Your task to perform on an android device: change keyboard looks Image 0: 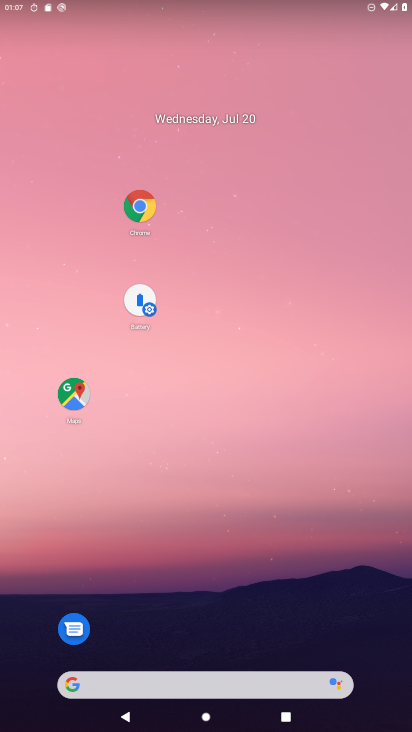
Step 0: drag from (162, 561) to (179, 88)
Your task to perform on an android device: change keyboard looks Image 1: 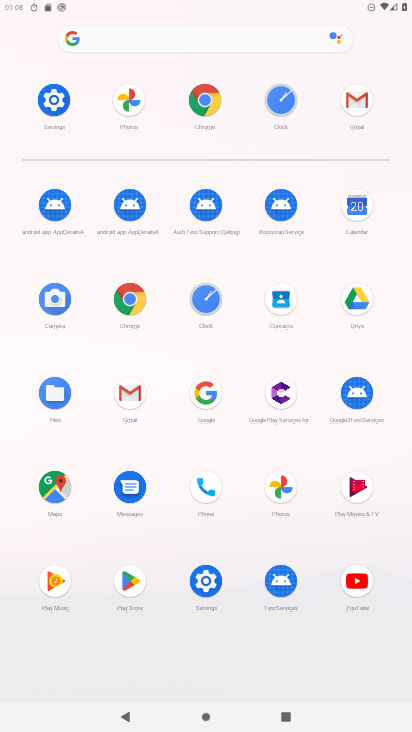
Step 1: click (202, 587)
Your task to perform on an android device: change keyboard looks Image 2: 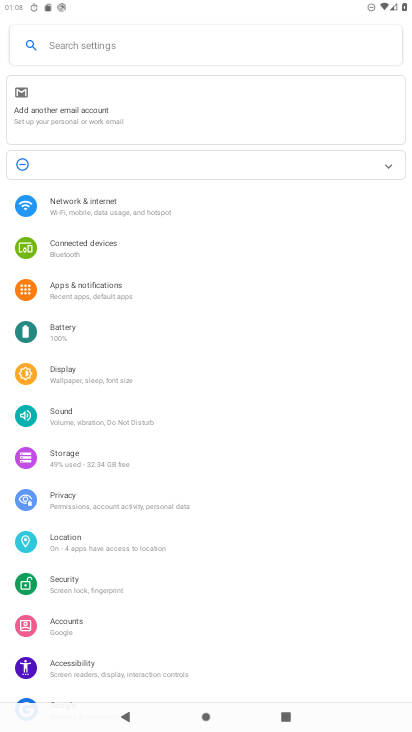
Step 2: drag from (129, 606) to (224, 287)
Your task to perform on an android device: change keyboard looks Image 3: 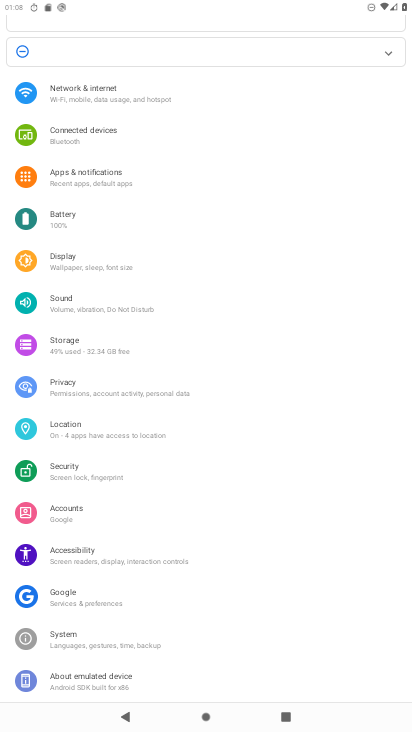
Step 3: drag from (148, 644) to (340, 222)
Your task to perform on an android device: change keyboard looks Image 4: 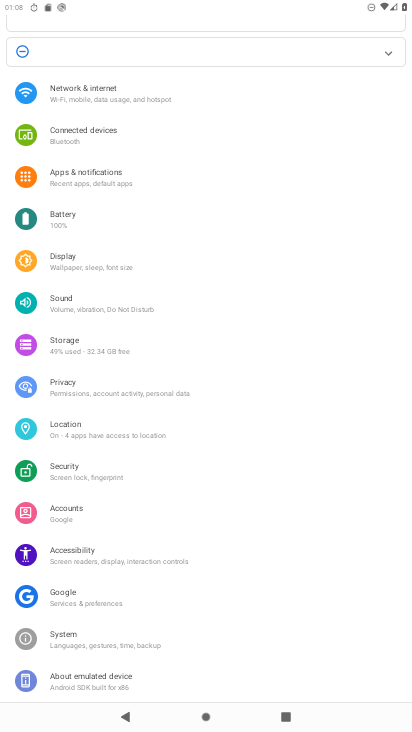
Step 4: click (108, 638)
Your task to perform on an android device: change keyboard looks Image 5: 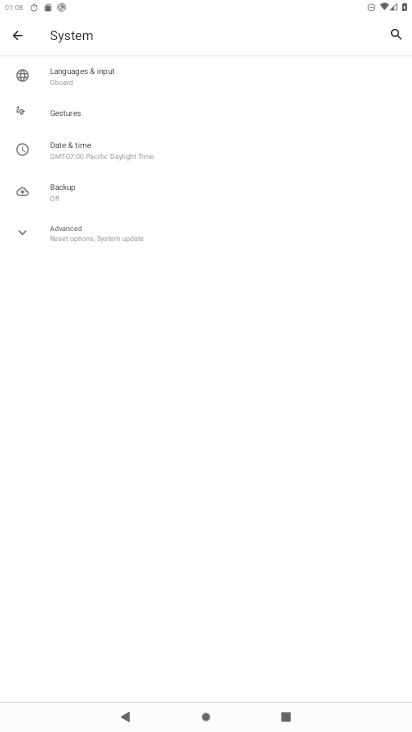
Step 5: click (137, 79)
Your task to perform on an android device: change keyboard looks Image 6: 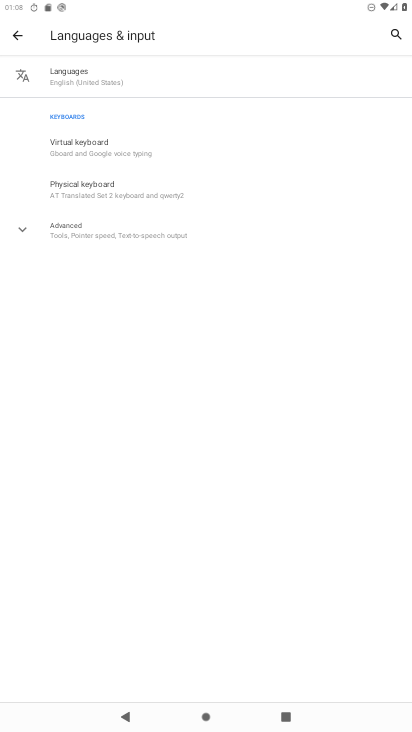
Step 6: click (82, 142)
Your task to perform on an android device: change keyboard looks Image 7: 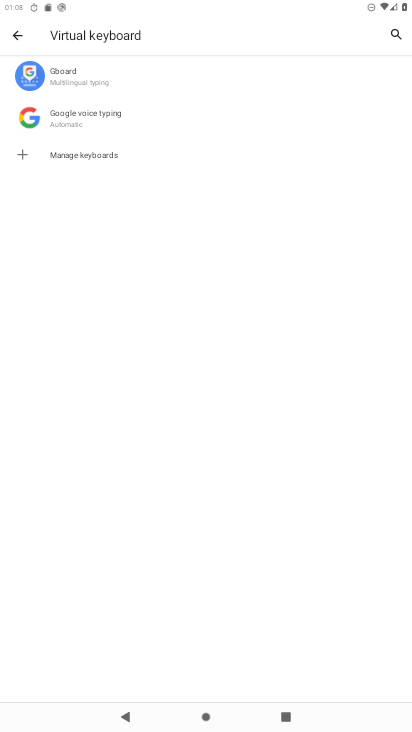
Step 7: click (129, 77)
Your task to perform on an android device: change keyboard looks Image 8: 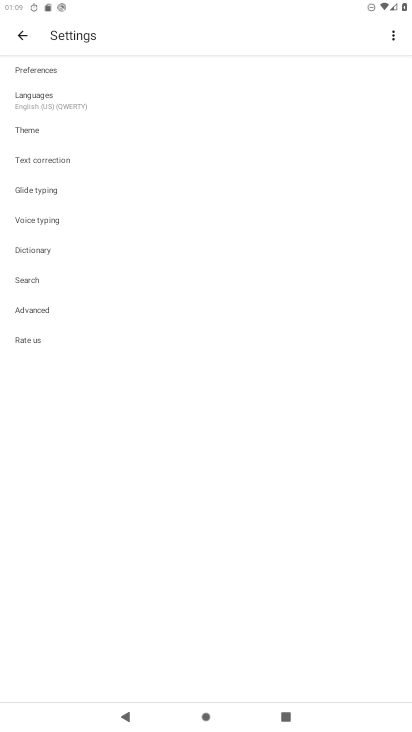
Step 8: click (36, 120)
Your task to perform on an android device: change keyboard looks Image 9: 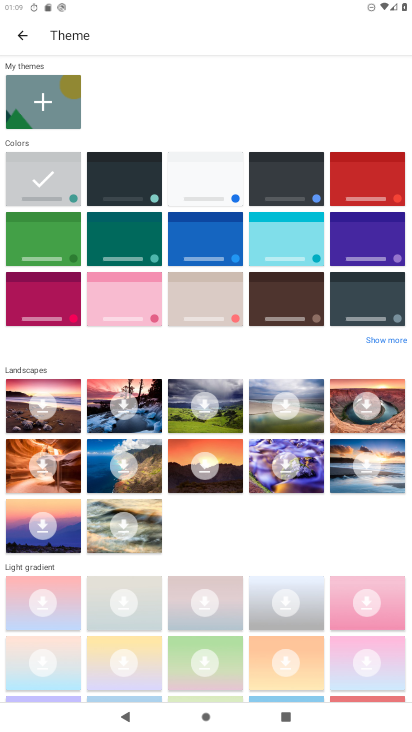
Step 9: click (145, 181)
Your task to perform on an android device: change keyboard looks Image 10: 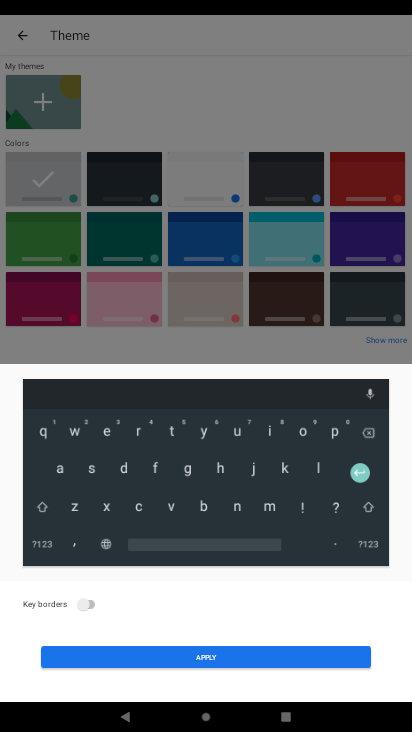
Step 10: click (229, 650)
Your task to perform on an android device: change keyboard looks Image 11: 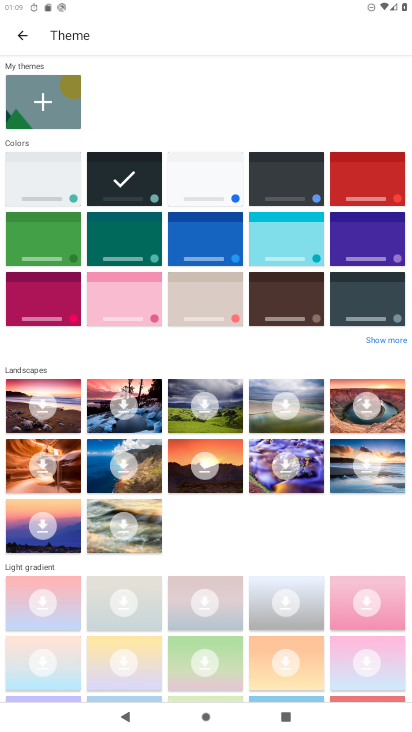
Step 11: task complete